Your task to perform on an android device: empty trash in google photos Image 0: 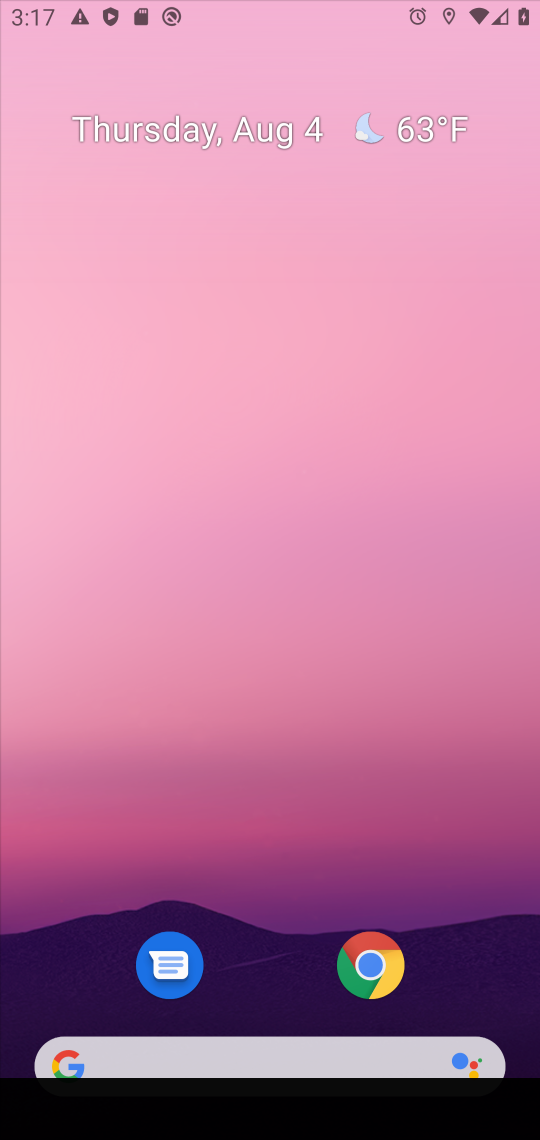
Step 0: press home button
Your task to perform on an android device: empty trash in google photos Image 1: 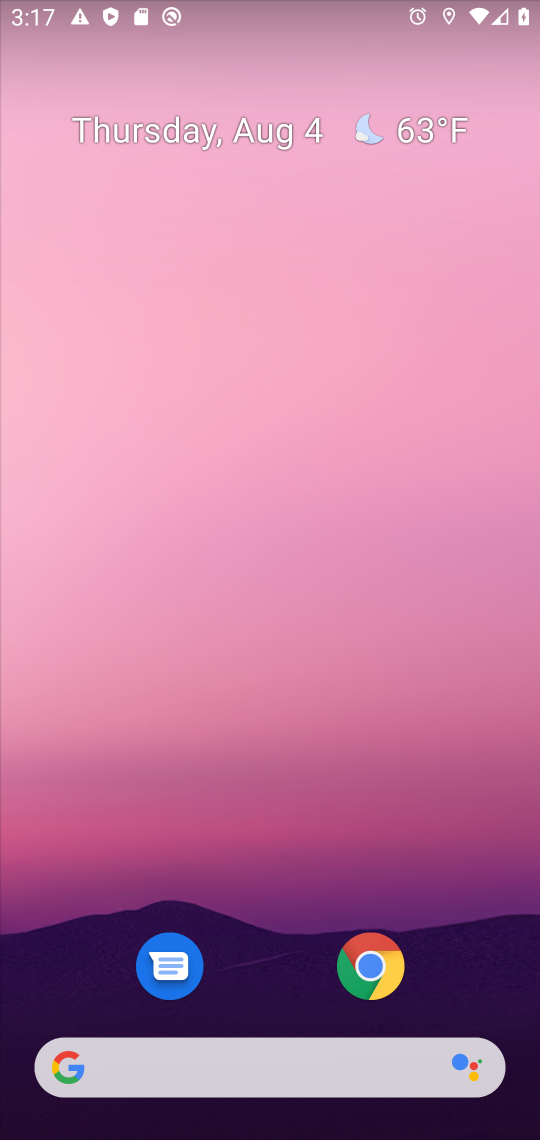
Step 1: drag from (279, 989) to (376, 369)
Your task to perform on an android device: empty trash in google photos Image 2: 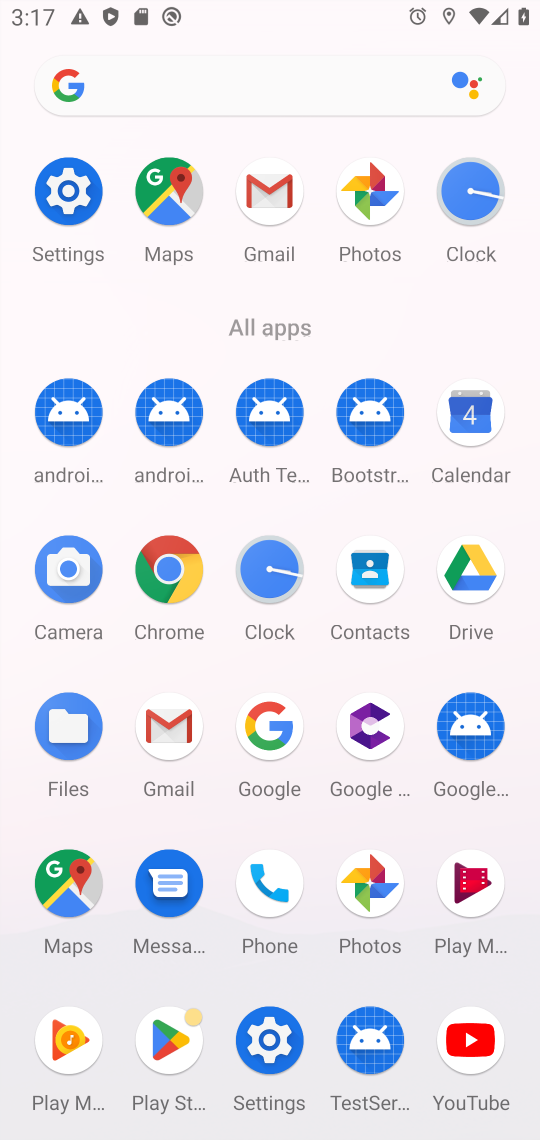
Step 2: click (369, 207)
Your task to perform on an android device: empty trash in google photos Image 3: 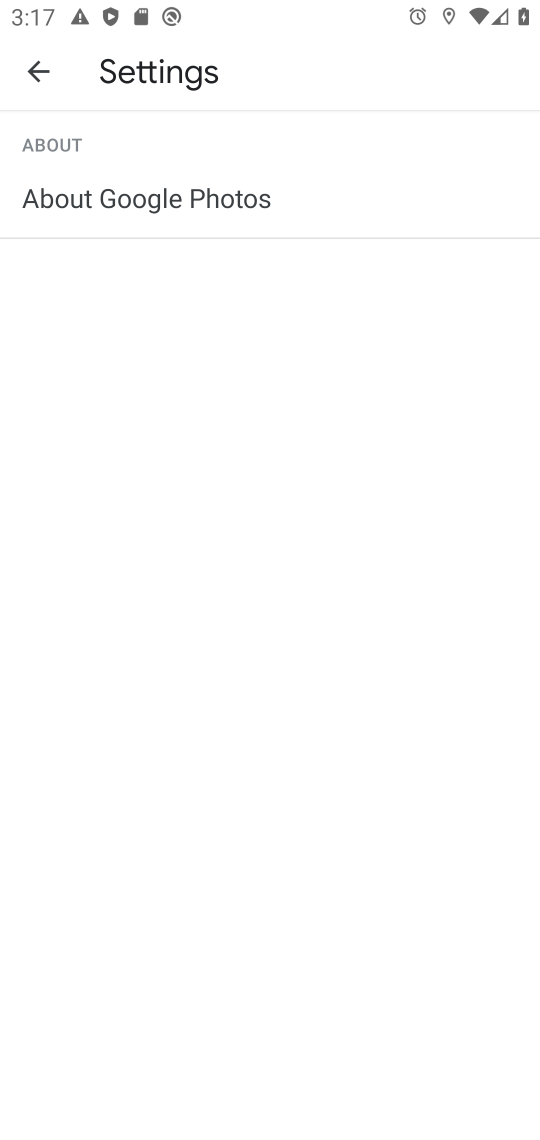
Step 3: click (41, 85)
Your task to perform on an android device: empty trash in google photos Image 4: 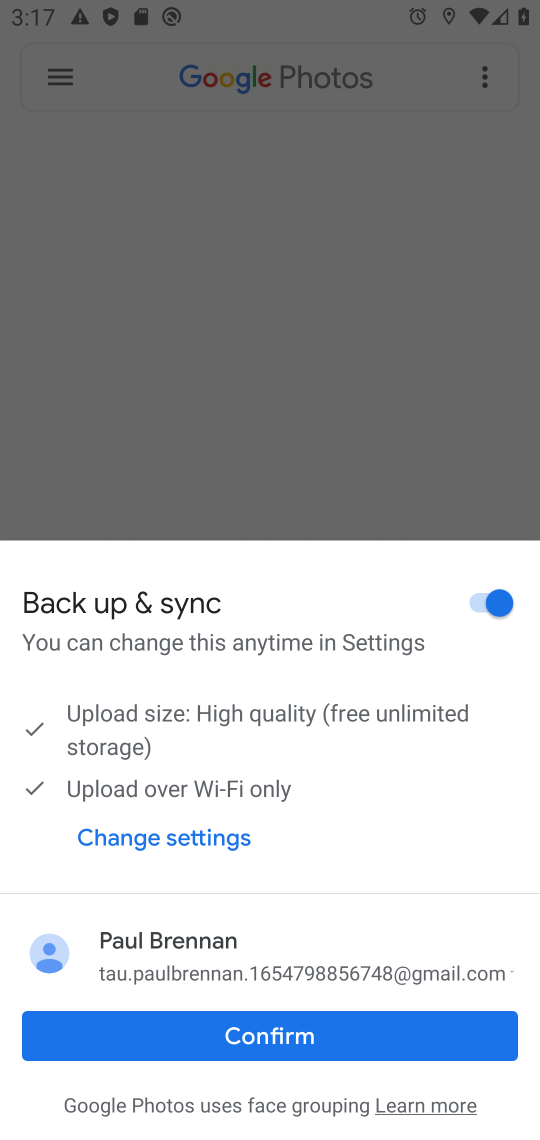
Step 4: click (61, 81)
Your task to perform on an android device: empty trash in google photos Image 5: 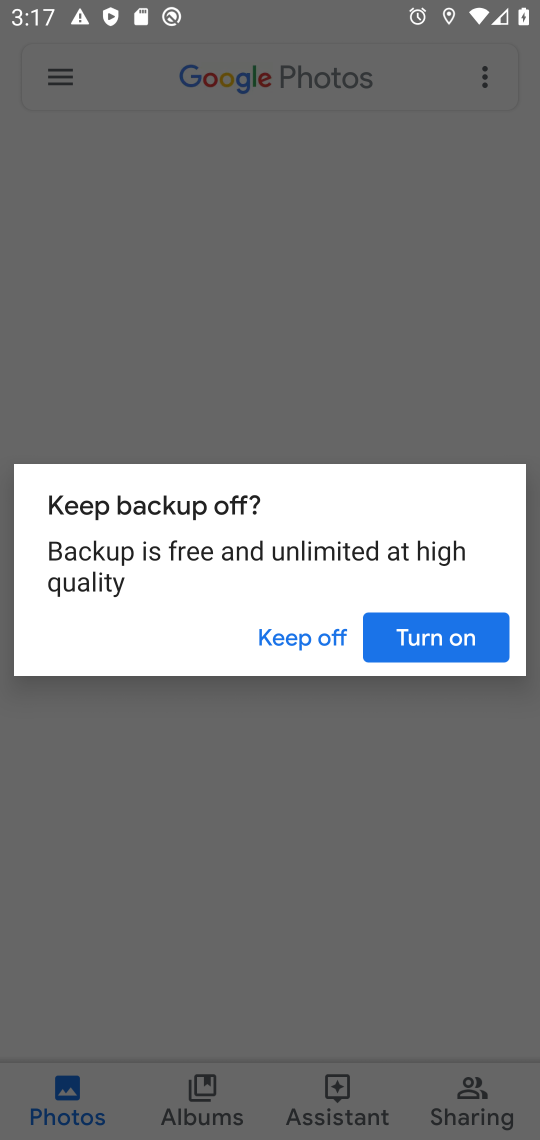
Step 5: click (331, 658)
Your task to perform on an android device: empty trash in google photos Image 6: 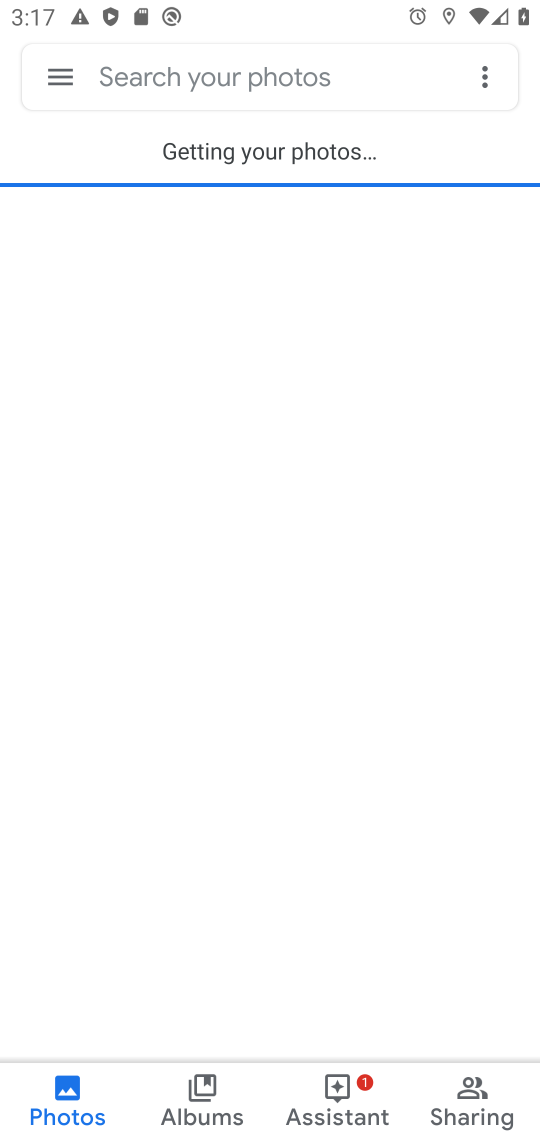
Step 6: click (56, 76)
Your task to perform on an android device: empty trash in google photos Image 7: 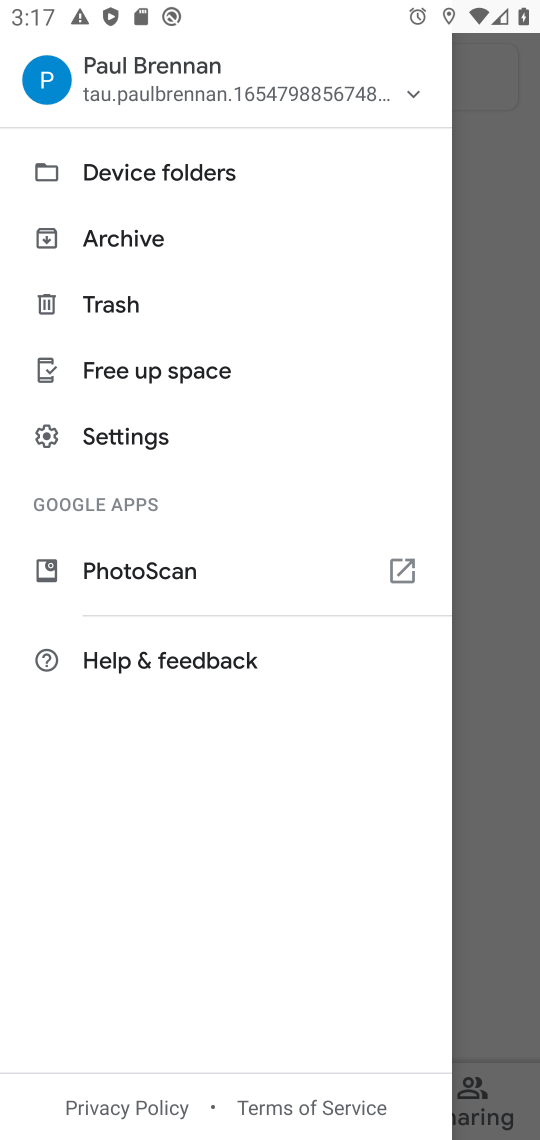
Step 7: click (127, 317)
Your task to perform on an android device: empty trash in google photos Image 8: 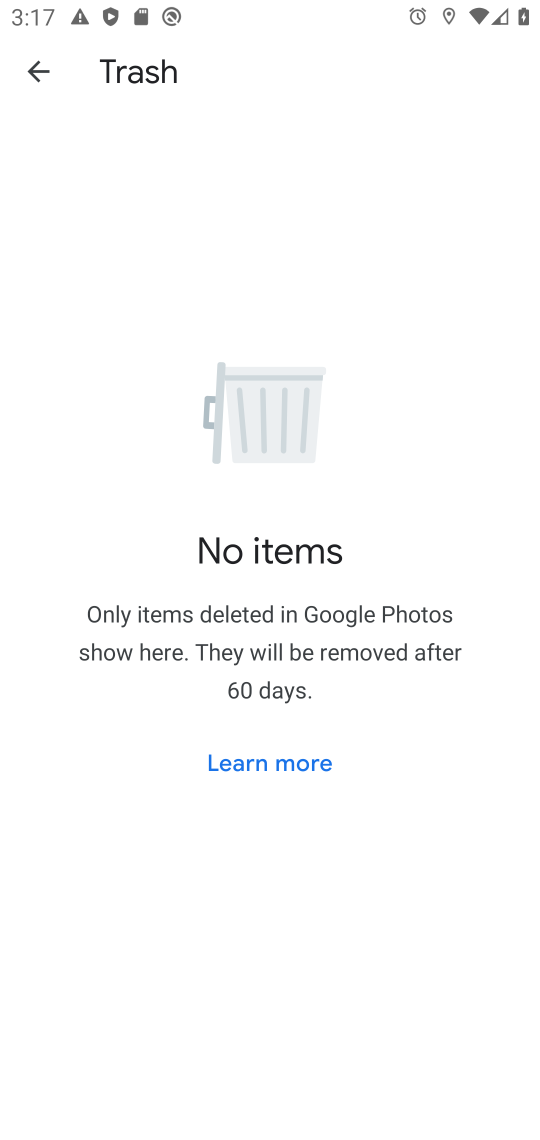
Step 8: task complete